Your task to perform on an android device: Go to Amazon Image 0: 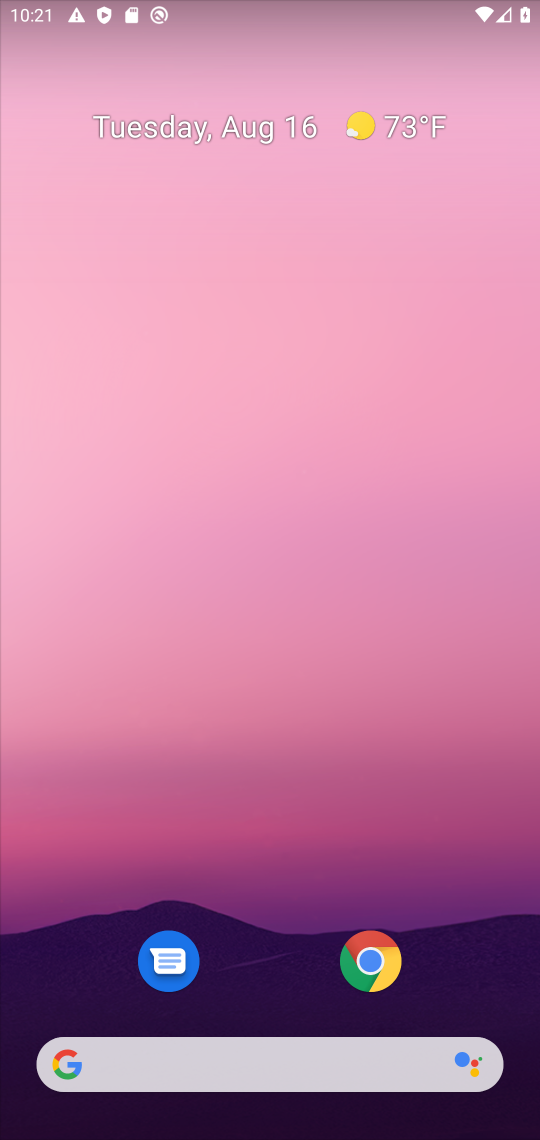
Step 0: click (365, 948)
Your task to perform on an android device: Go to Amazon Image 1: 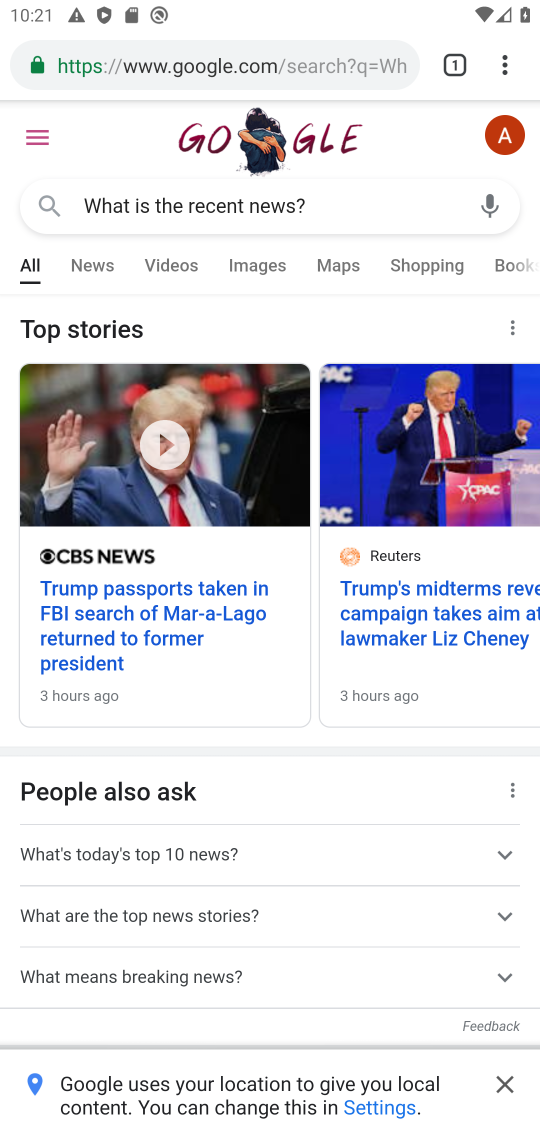
Step 1: task complete